Your task to perform on an android device: find snoozed emails in the gmail app Image 0: 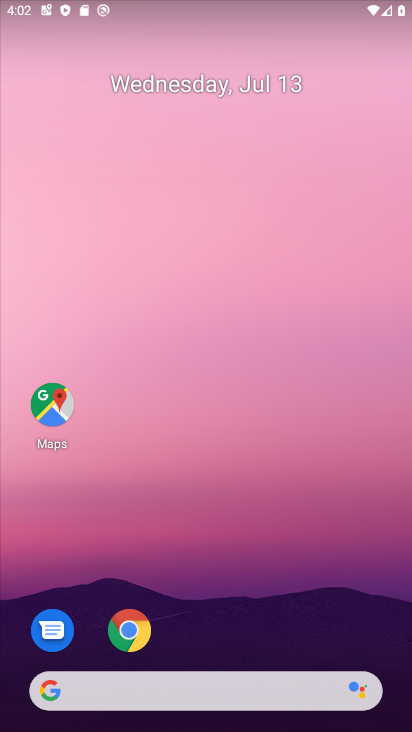
Step 0: drag from (318, 699) to (398, 403)
Your task to perform on an android device: find snoozed emails in the gmail app Image 1: 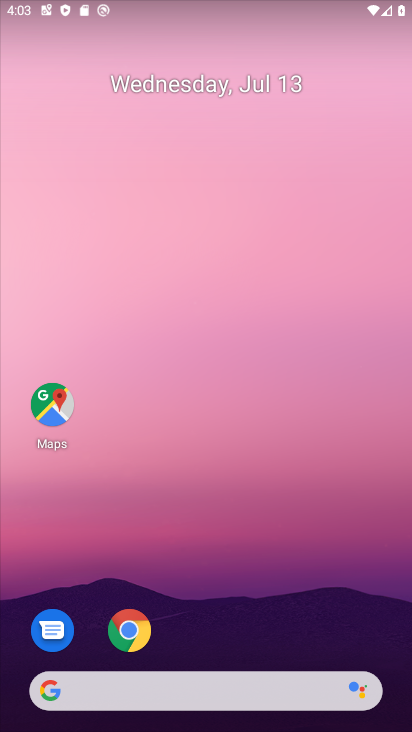
Step 1: drag from (162, 675) to (287, 210)
Your task to perform on an android device: find snoozed emails in the gmail app Image 2: 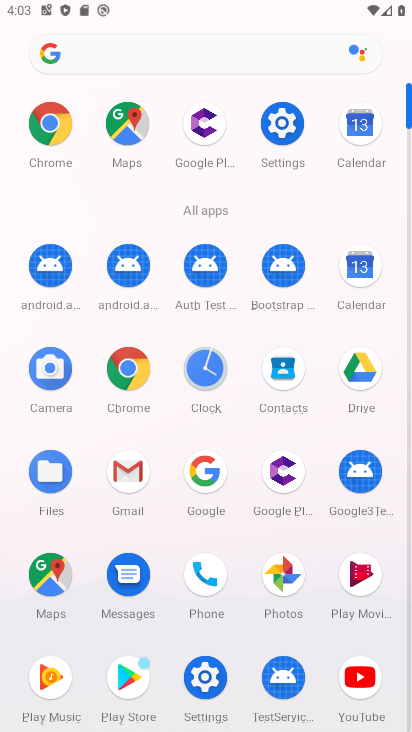
Step 2: click (141, 477)
Your task to perform on an android device: find snoozed emails in the gmail app Image 3: 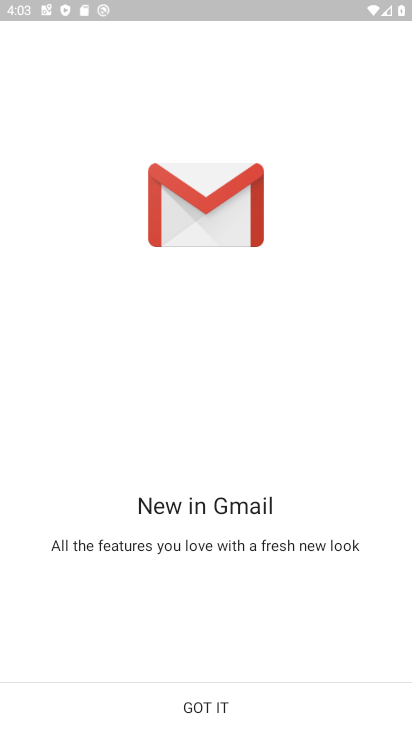
Step 3: click (182, 703)
Your task to perform on an android device: find snoozed emails in the gmail app Image 4: 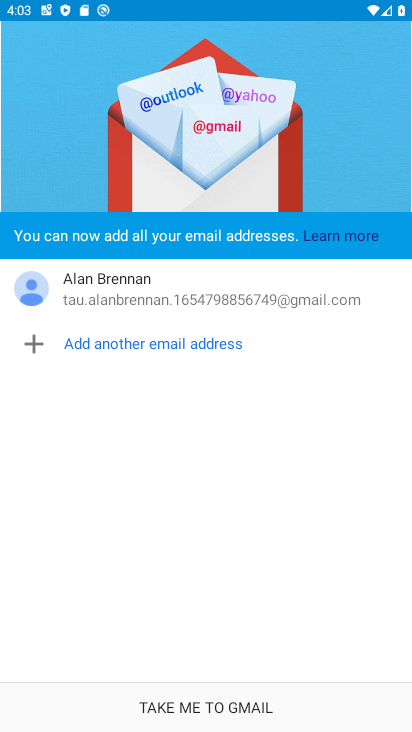
Step 4: click (179, 707)
Your task to perform on an android device: find snoozed emails in the gmail app Image 5: 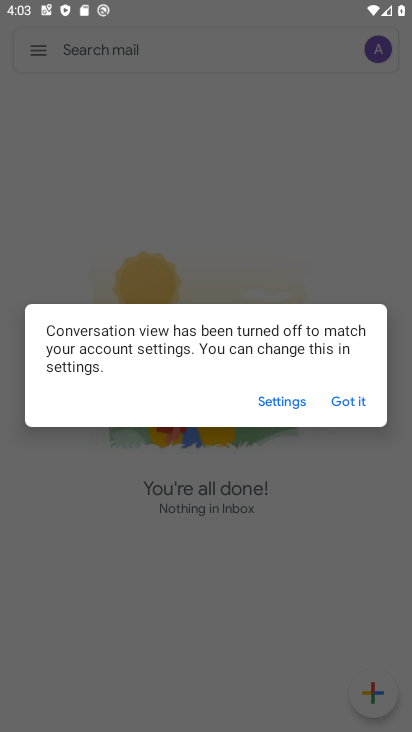
Step 5: click (319, 396)
Your task to perform on an android device: find snoozed emails in the gmail app Image 6: 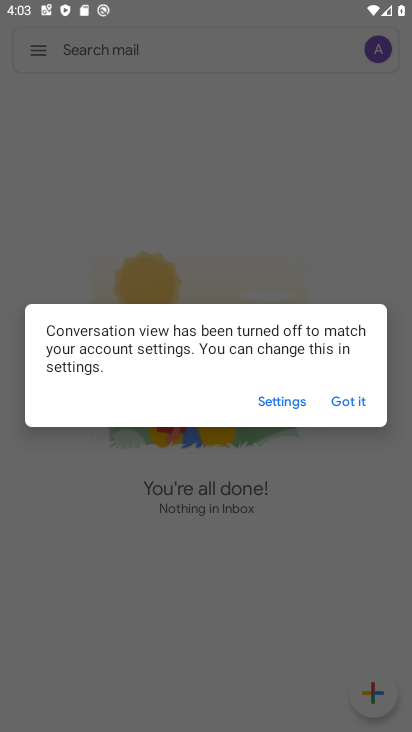
Step 6: click (338, 400)
Your task to perform on an android device: find snoozed emails in the gmail app Image 7: 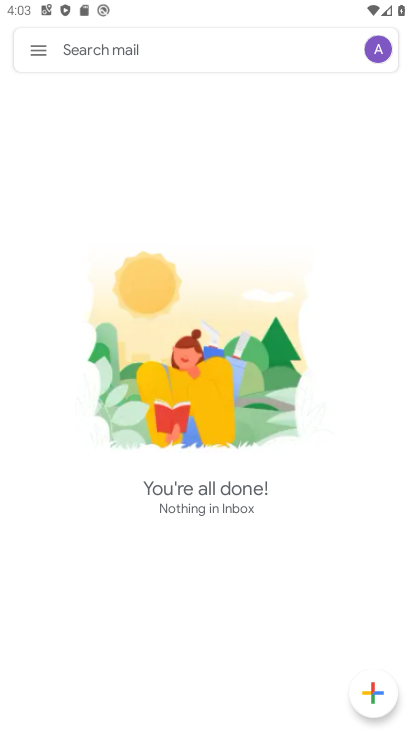
Step 7: click (44, 43)
Your task to perform on an android device: find snoozed emails in the gmail app Image 8: 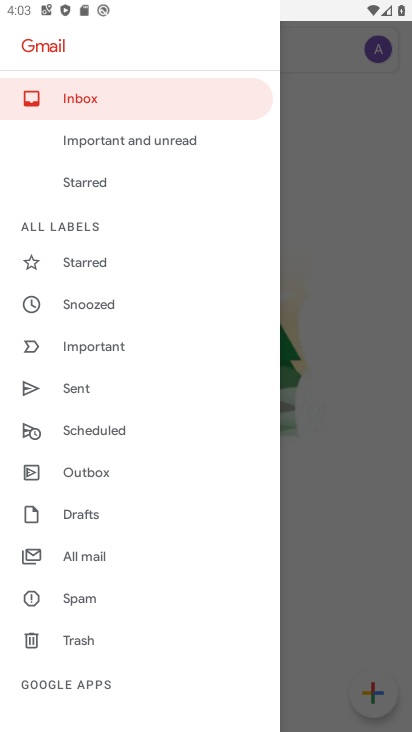
Step 8: click (106, 301)
Your task to perform on an android device: find snoozed emails in the gmail app Image 9: 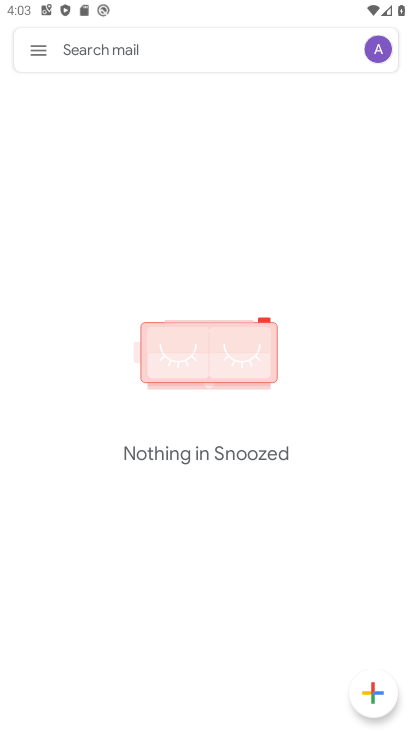
Step 9: task complete